Your task to perform on an android device: Set the phone to "Do not disturb". Image 0: 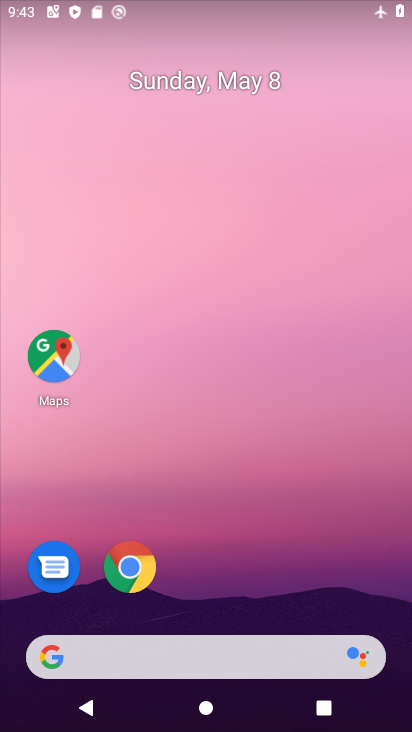
Step 0: click (204, 302)
Your task to perform on an android device: Set the phone to "Do not disturb". Image 1: 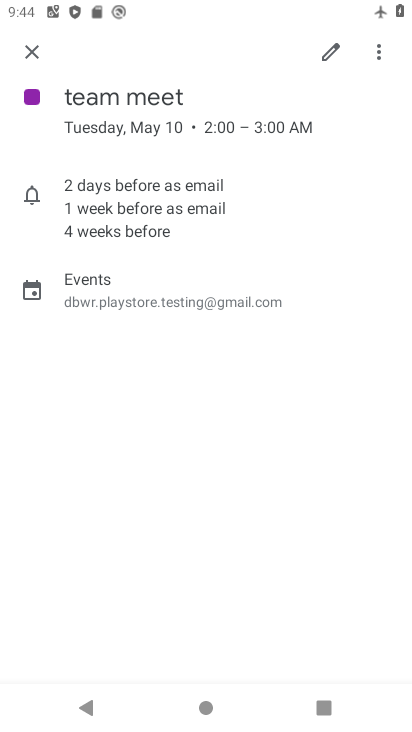
Step 1: press home button
Your task to perform on an android device: Set the phone to "Do not disturb". Image 2: 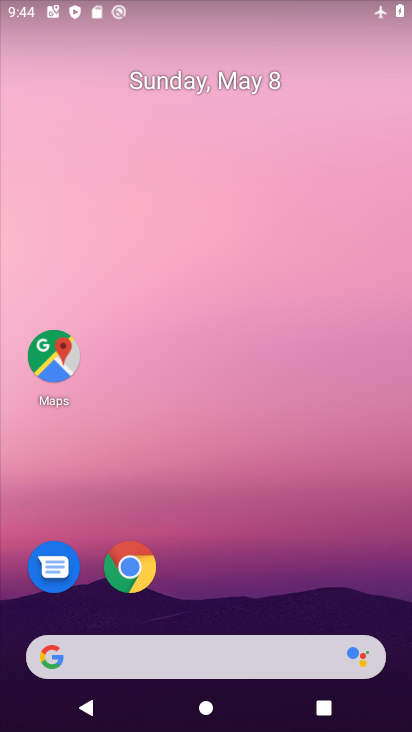
Step 2: drag from (144, 632) to (209, 289)
Your task to perform on an android device: Set the phone to "Do not disturb". Image 3: 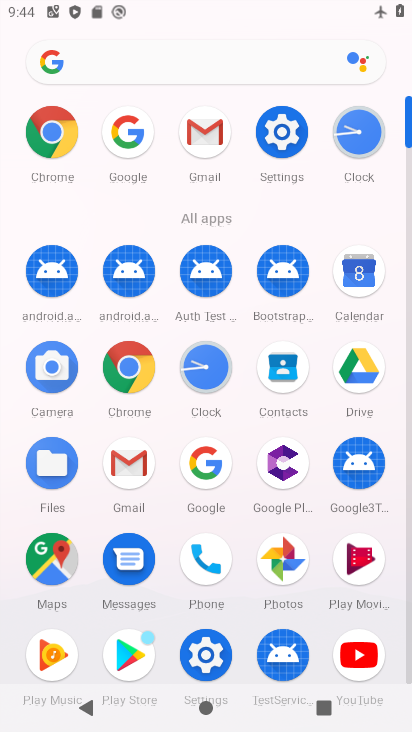
Step 3: click (274, 134)
Your task to perform on an android device: Set the phone to "Do not disturb". Image 4: 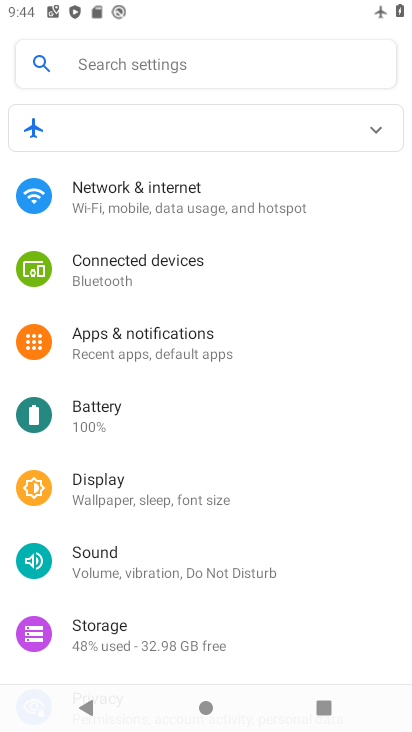
Step 4: drag from (112, 617) to (155, 346)
Your task to perform on an android device: Set the phone to "Do not disturb". Image 5: 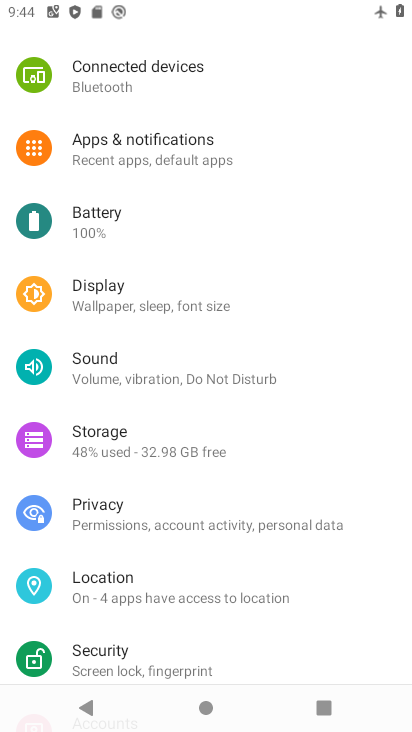
Step 5: click (92, 375)
Your task to perform on an android device: Set the phone to "Do not disturb". Image 6: 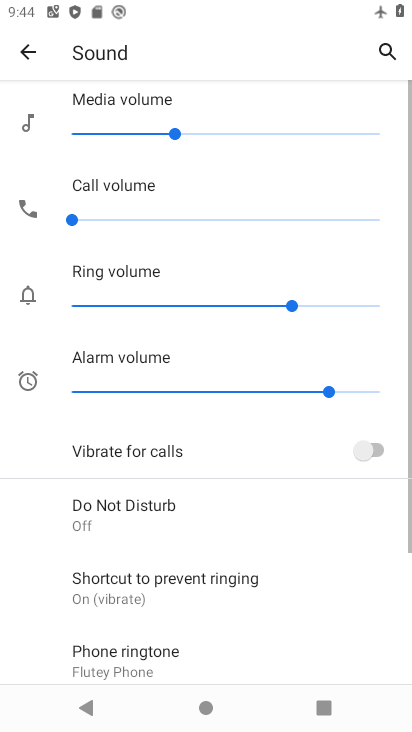
Step 6: drag from (145, 664) to (234, 279)
Your task to perform on an android device: Set the phone to "Do not disturb". Image 7: 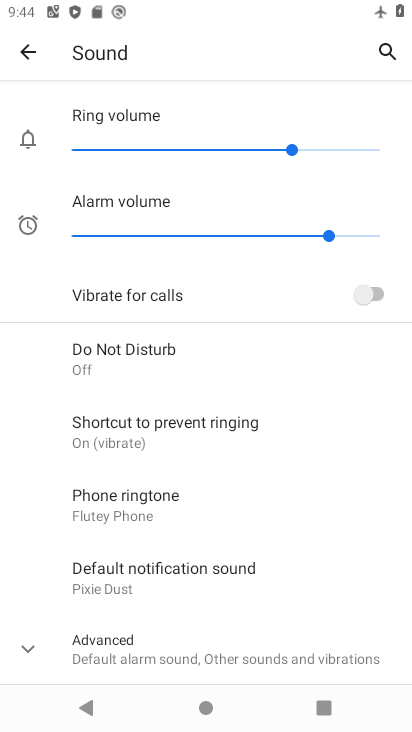
Step 7: drag from (114, 651) to (176, 259)
Your task to perform on an android device: Set the phone to "Do not disturb". Image 8: 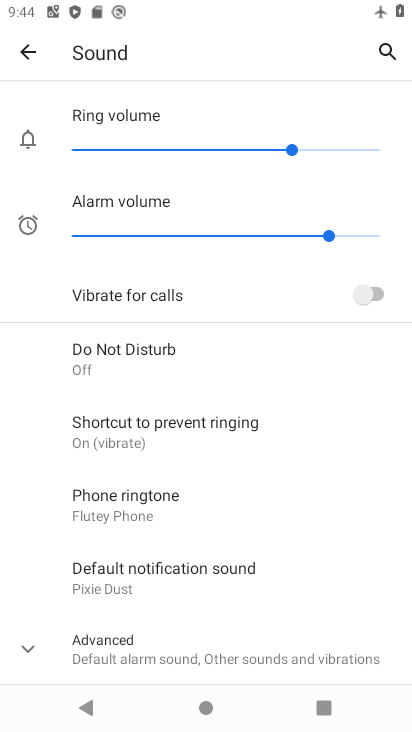
Step 8: click (161, 363)
Your task to perform on an android device: Set the phone to "Do not disturb". Image 9: 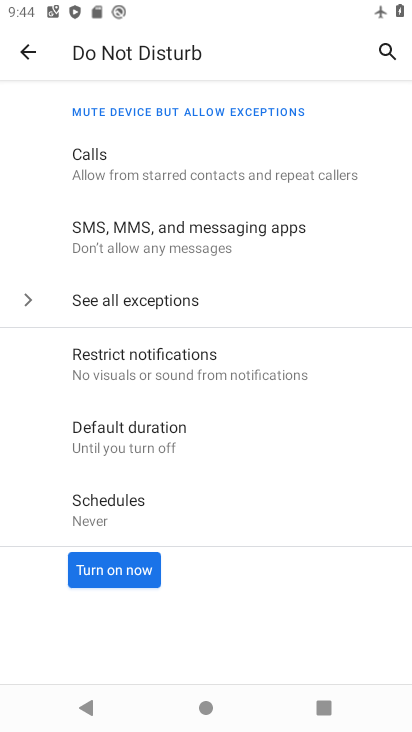
Step 9: click (125, 568)
Your task to perform on an android device: Set the phone to "Do not disturb". Image 10: 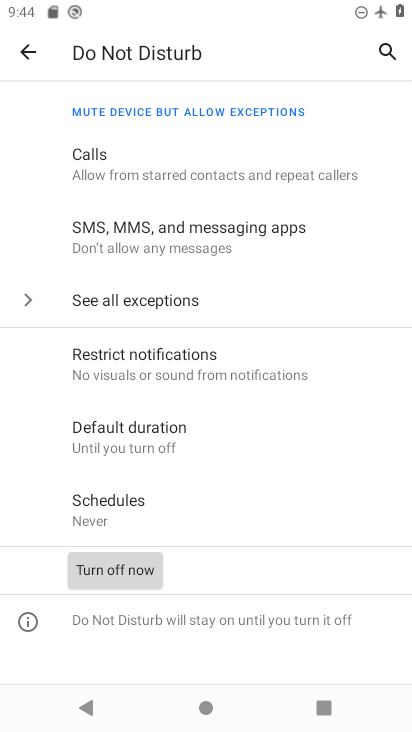
Step 10: task complete